Your task to perform on an android device: choose inbox layout in the gmail app Image 0: 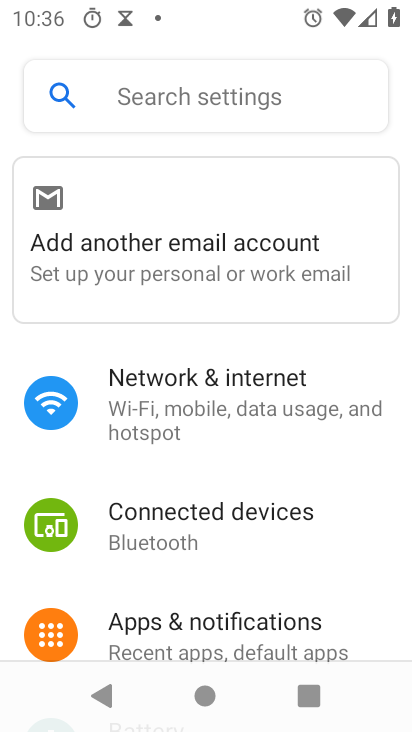
Step 0: press home button
Your task to perform on an android device: choose inbox layout in the gmail app Image 1: 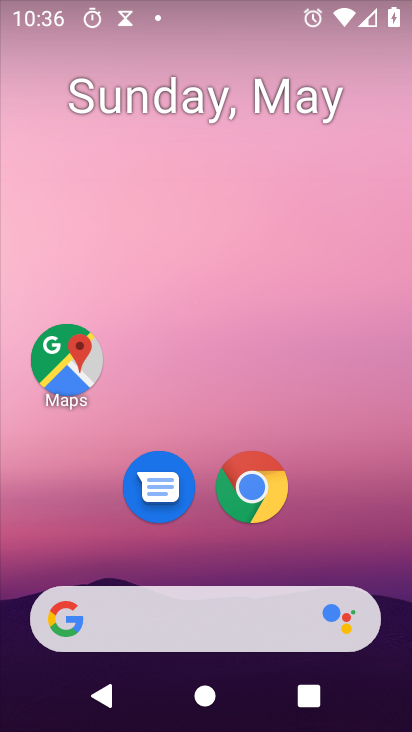
Step 1: drag from (334, 505) to (400, 92)
Your task to perform on an android device: choose inbox layout in the gmail app Image 2: 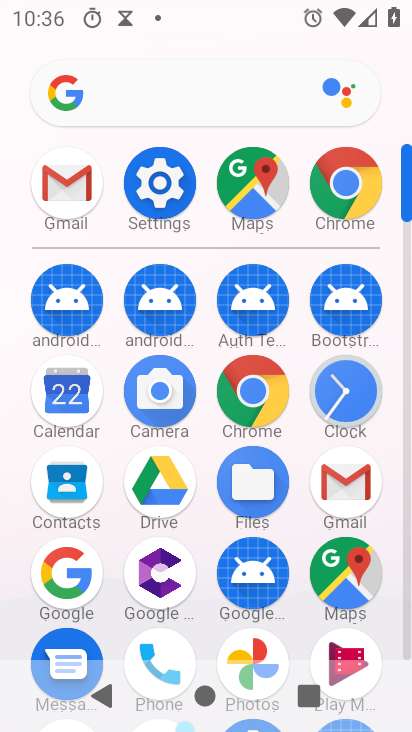
Step 2: click (65, 153)
Your task to perform on an android device: choose inbox layout in the gmail app Image 3: 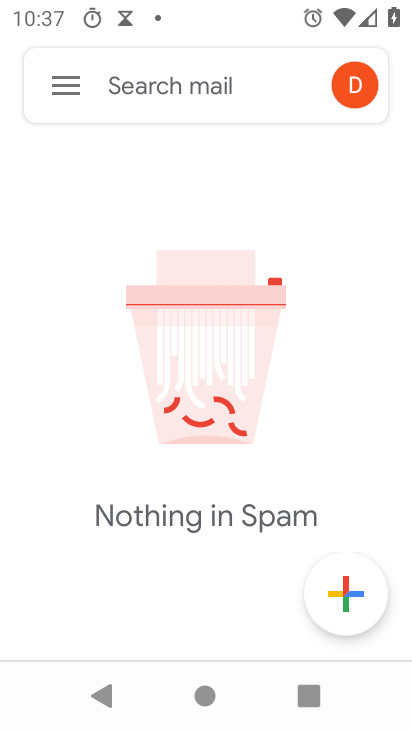
Step 3: click (53, 71)
Your task to perform on an android device: choose inbox layout in the gmail app Image 4: 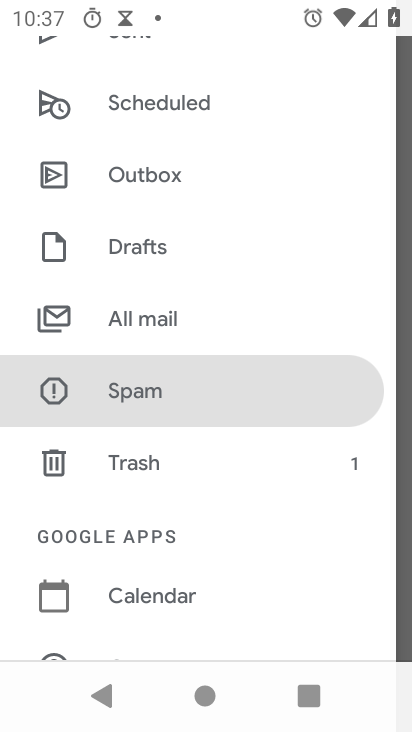
Step 4: drag from (151, 606) to (198, 172)
Your task to perform on an android device: choose inbox layout in the gmail app Image 5: 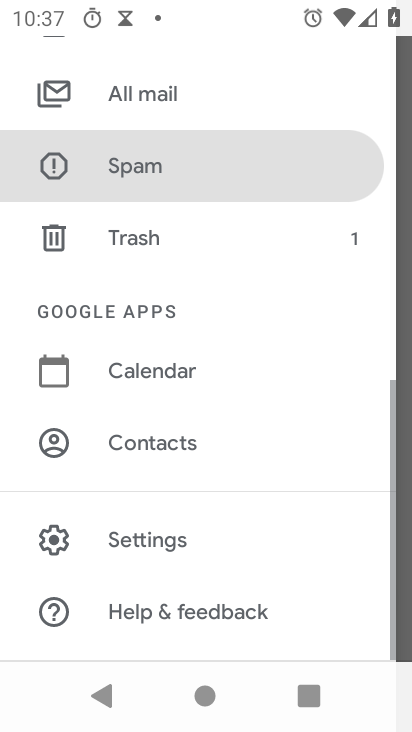
Step 5: click (151, 555)
Your task to perform on an android device: choose inbox layout in the gmail app Image 6: 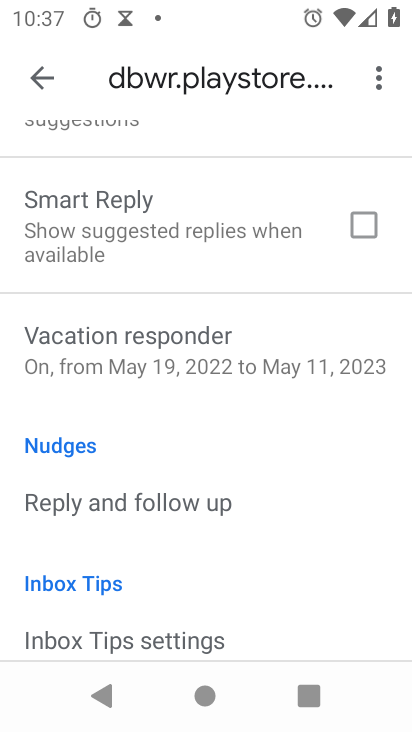
Step 6: drag from (143, 317) to (204, 620)
Your task to perform on an android device: choose inbox layout in the gmail app Image 7: 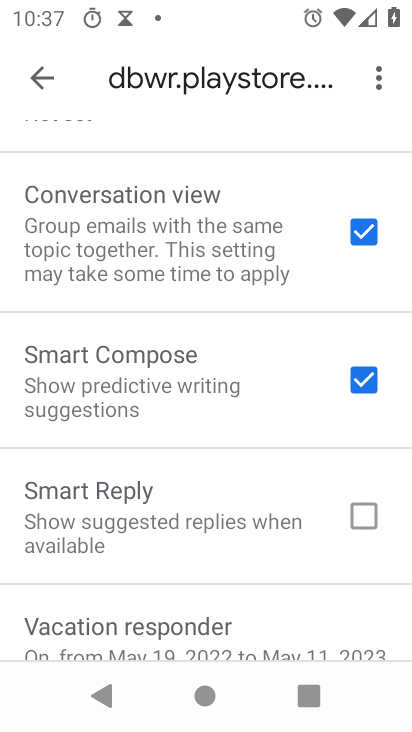
Step 7: drag from (162, 265) to (162, 612)
Your task to perform on an android device: choose inbox layout in the gmail app Image 8: 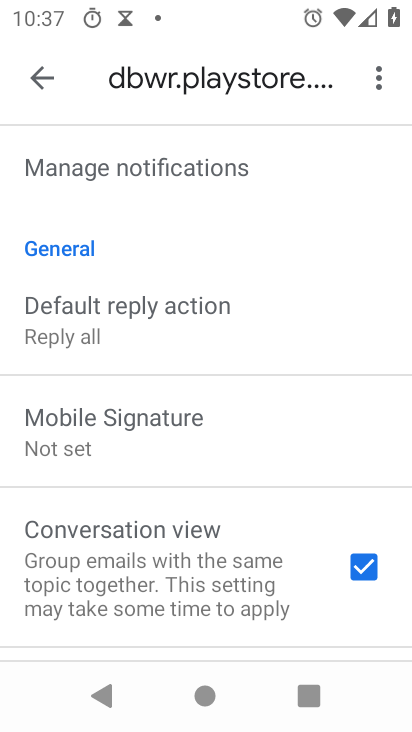
Step 8: drag from (171, 226) to (161, 620)
Your task to perform on an android device: choose inbox layout in the gmail app Image 9: 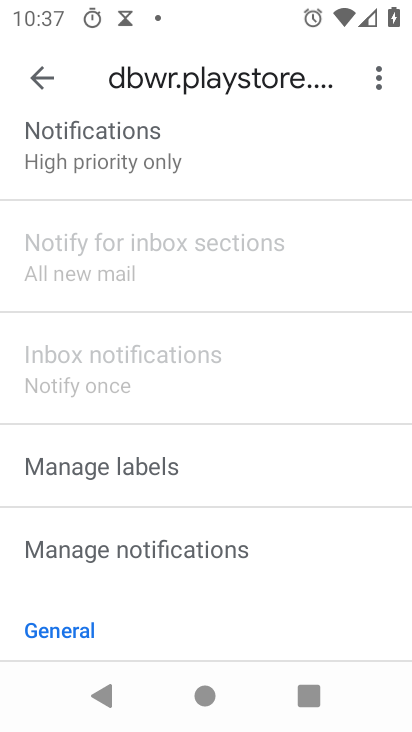
Step 9: drag from (189, 127) to (196, 543)
Your task to perform on an android device: choose inbox layout in the gmail app Image 10: 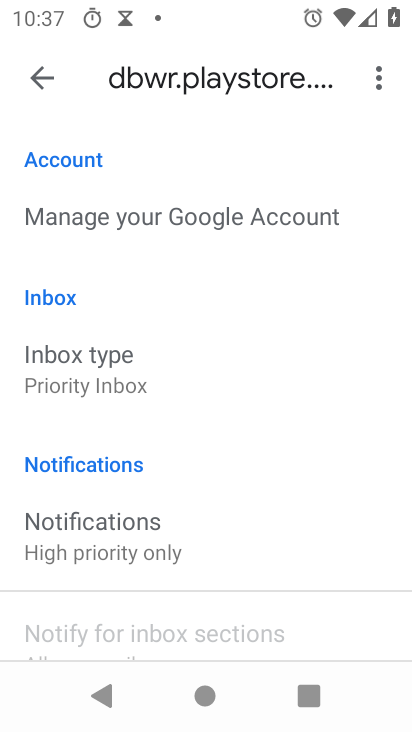
Step 10: click (135, 399)
Your task to perform on an android device: choose inbox layout in the gmail app Image 11: 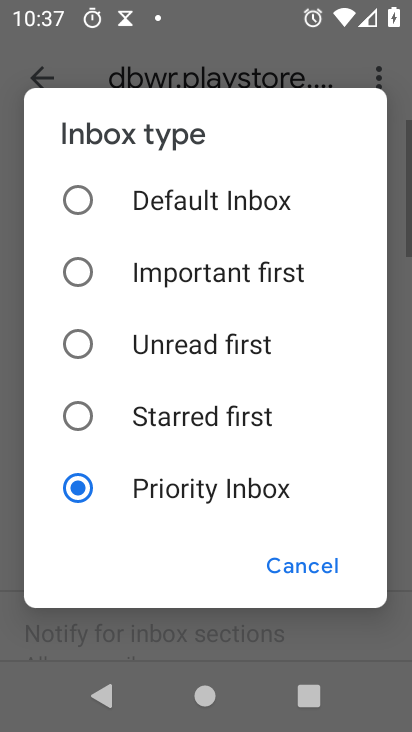
Step 11: click (123, 333)
Your task to perform on an android device: choose inbox layout in the gmail app Image 12: 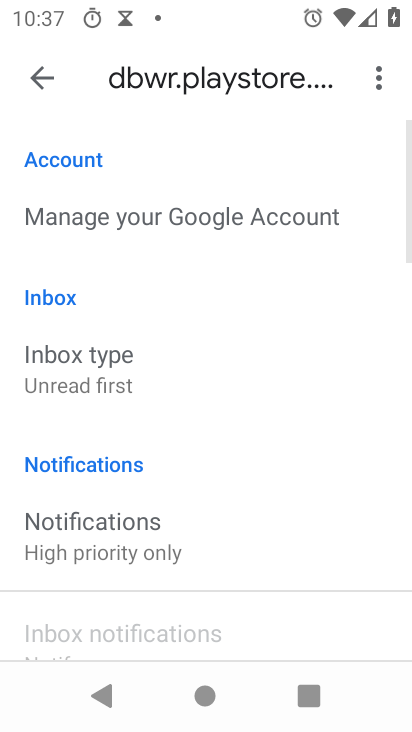
Step 12: task complete